Your task to perform on an android device: open a bookmark in the chrome app Image 0: 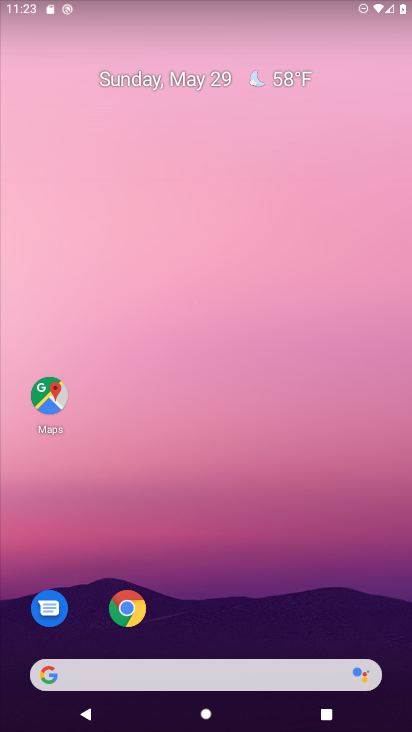
Step 0: drag from (207, 540) to (219, 198)
Your task to perform on an android device: open a bookmark in the chrome app Image 1: 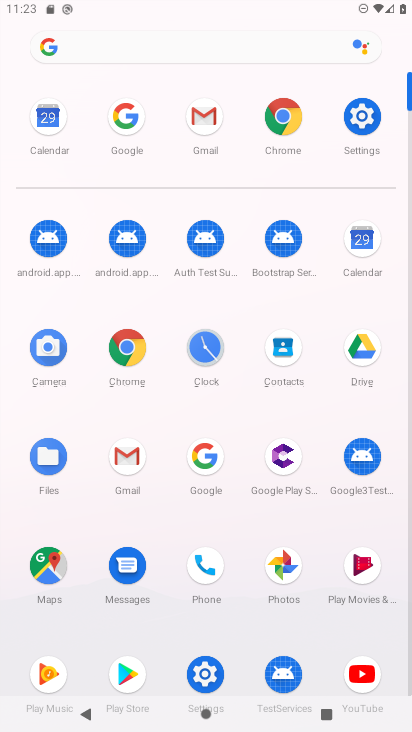
Step 1: click (272, 127)
Your task to perform on an android device: open a bookmark in the chrome app Image 2: 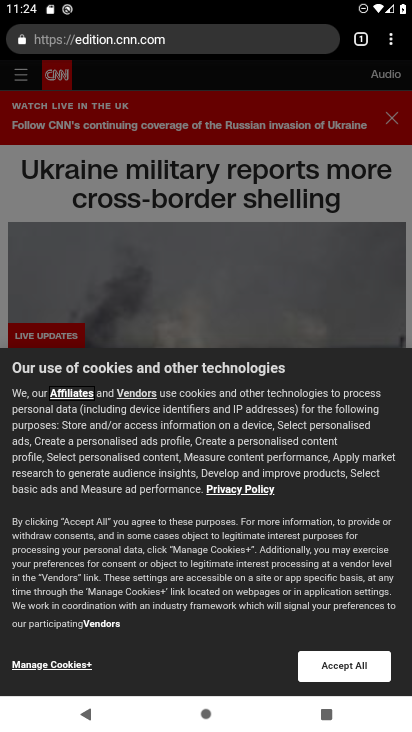
Step 2: click (392, 43)
Your task to perform on an android device: open a bookmark in the chrome app Image 3: 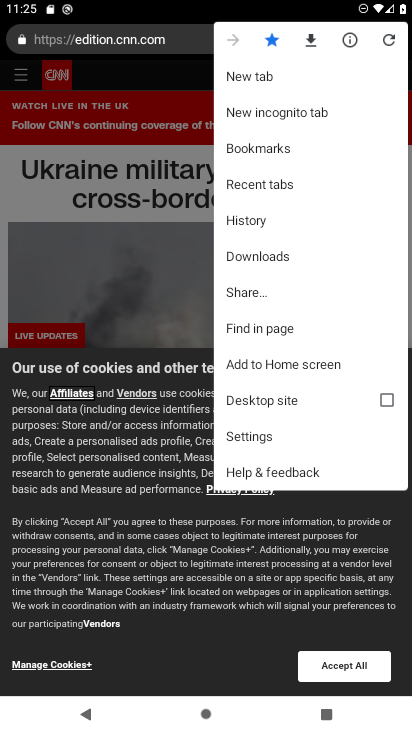
Step 3: click (260, 133)
Your task to perform on an android device: open a bookmark in the chrome app Image 4: 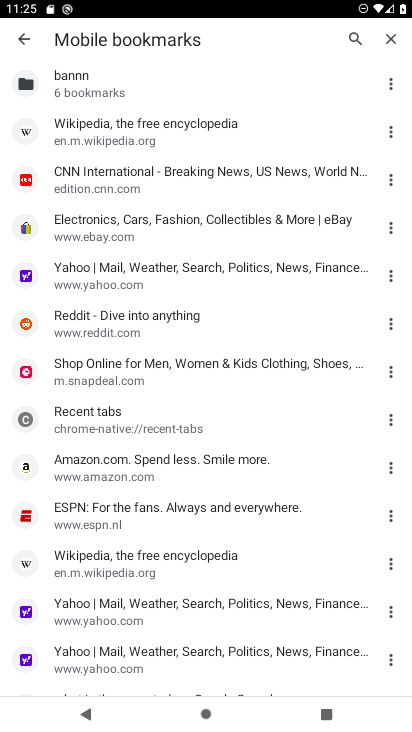
Step 4: task complete